Your task to perform on an android device: make emails show in primary in the gmail app Image 0: 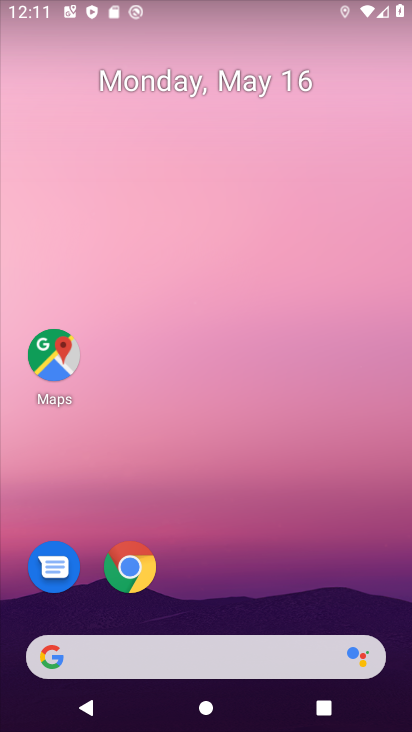
Step 0: drag from (260, 611) to (236, 93)
Your task to perform on an android device: make emails show in primary in the gmail app Image 1: 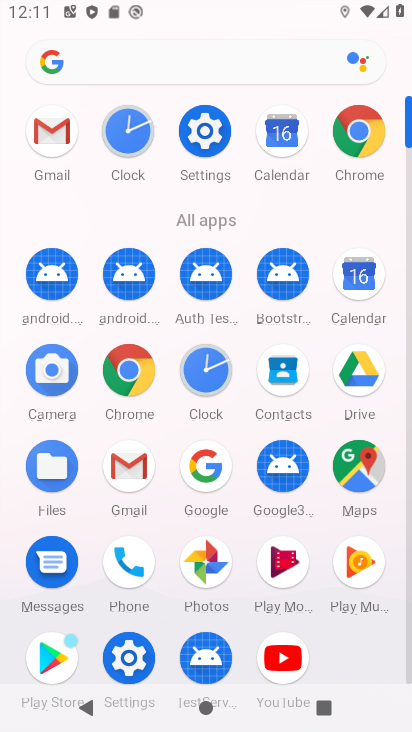
Step 1: click (58, 131)
Your task to perform on an android device: make emails show in primary in the gmail app Image 2: 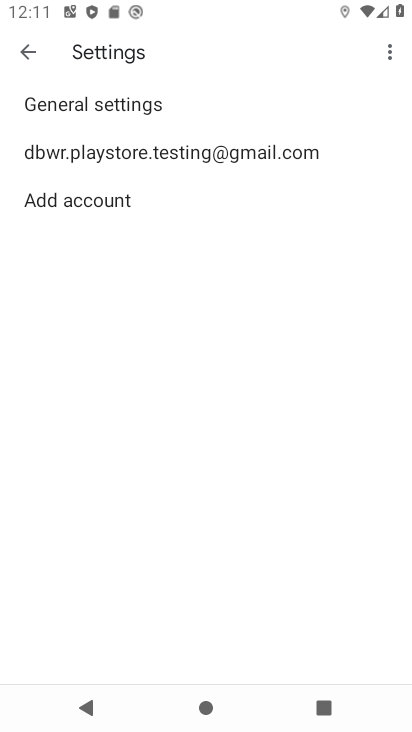
Step 2: click (74, 147)
Your task to perform on an android device: make emails show in primary in the gmail app Image 3: 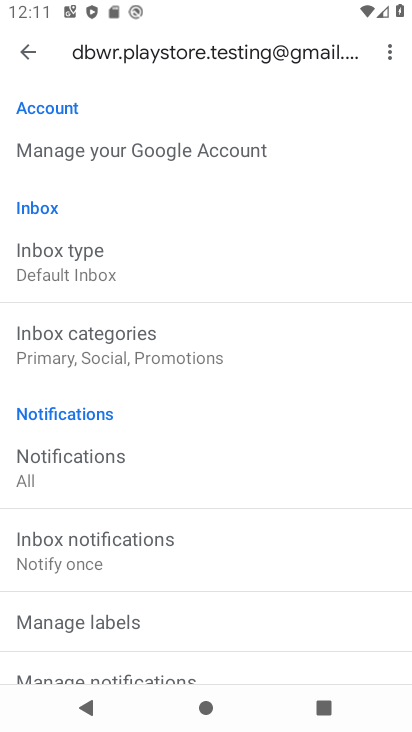
Step 3: drag from (197, 520) to (223, 406)
Your task to perform on an android device: make emails show in primary in the gmail app Image 4: 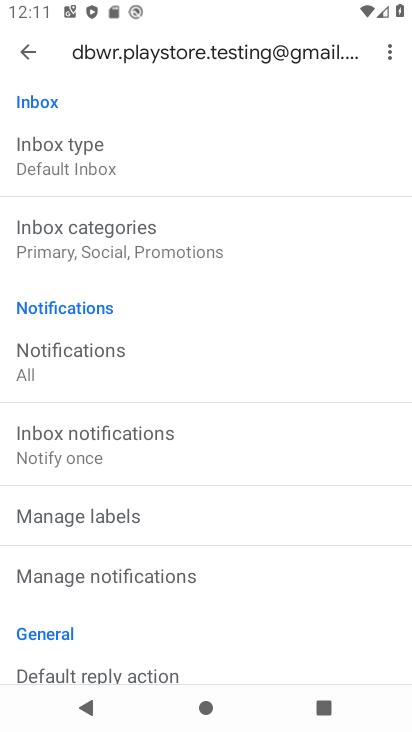
Step 4: click (179, 235)
Your task to perform on an android device: make emails show in primary in the gmail app Image 5: 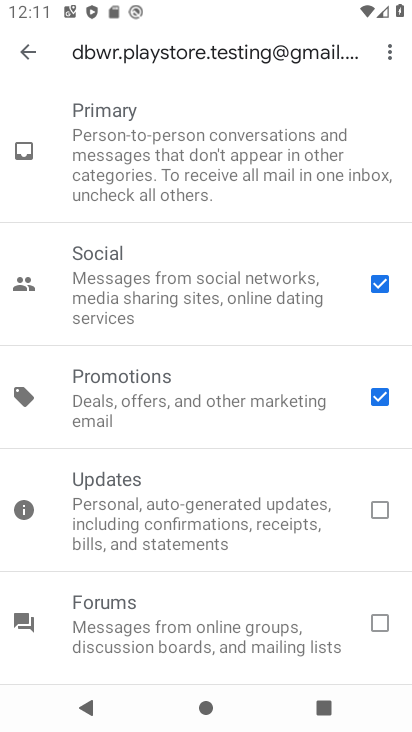
Step 5: task complete